Your task to perform on an android device: toggle priority inbox in the gmail app Image 0: 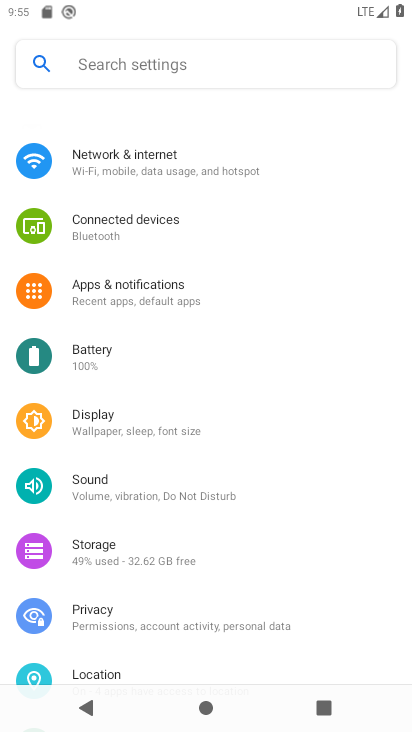
Step 0: press home button
Your task to perform on an android device: toggle priority inbox in the gmail app Image 1: 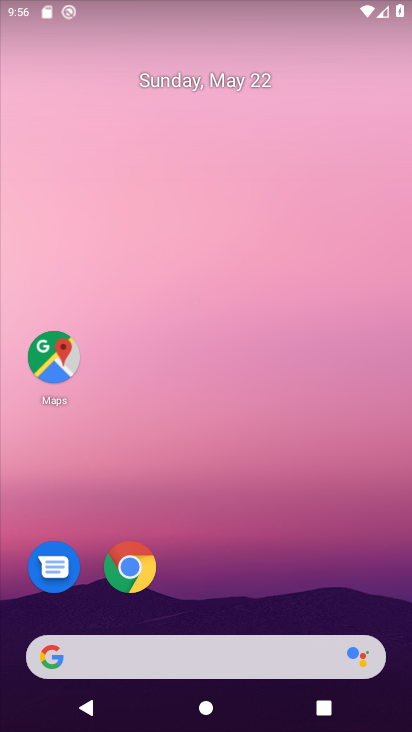
Step 1: drag from (235, 306) to (238, 70)
Your task to perform on an android device: toggle priority inbox in the gmail app Image 2: 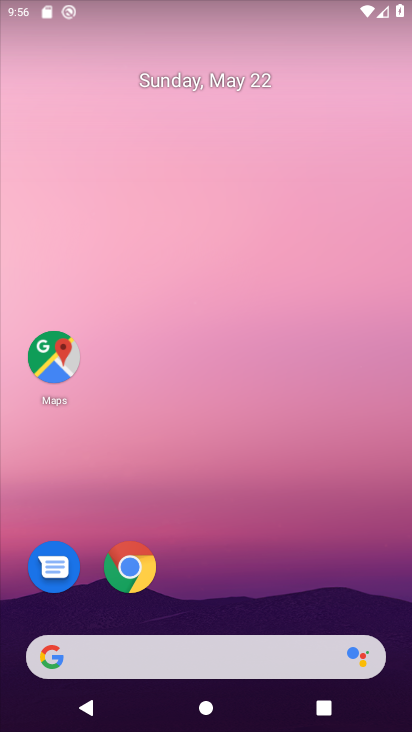
Step 2: drag from (225, 604) to (243, 63)
Your task to perform on an android device: toggle priority inbox in the gmail app Image 3: 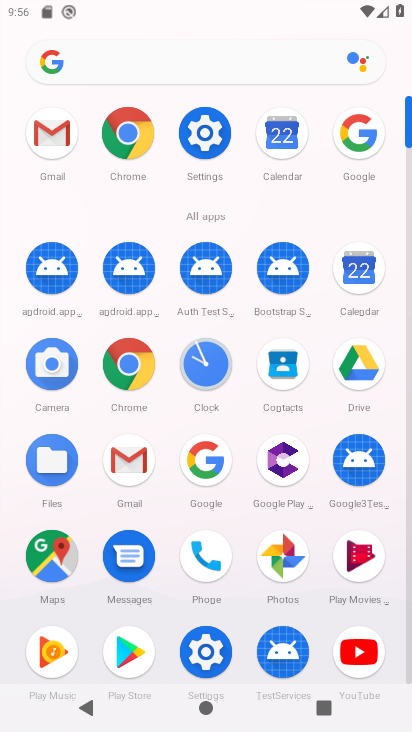
Step 3: click (43, 124)
Your task to perform on an android device: toggle priority inbox in the gmail app Image 4: 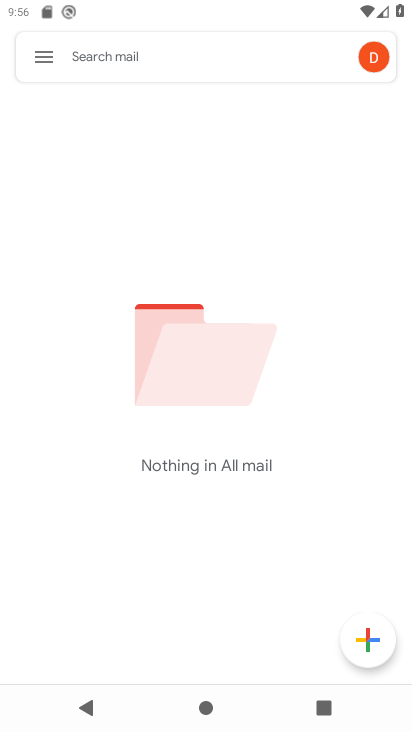
Step 4: click (37, 47)
Your task to perform on an android device: toggle priority inbox in the gmail app Image 5: 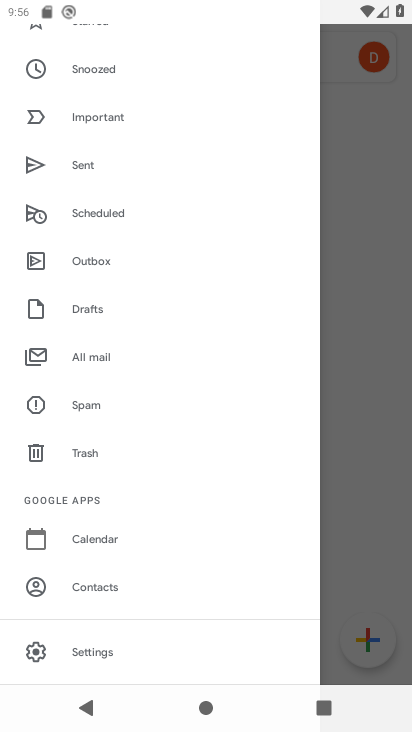
Step 5: click (125, 651)
Your task to perform on an android device: toggle priority inbox in the gmail app Image 6: 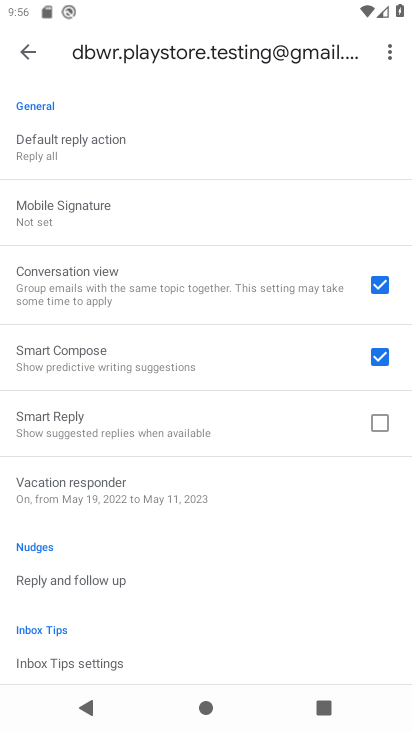
Step 6: drag from (178, 625) to (188, 88)
Your task to perform on an android device: toggle priority inbox in the gmail app Image 7: 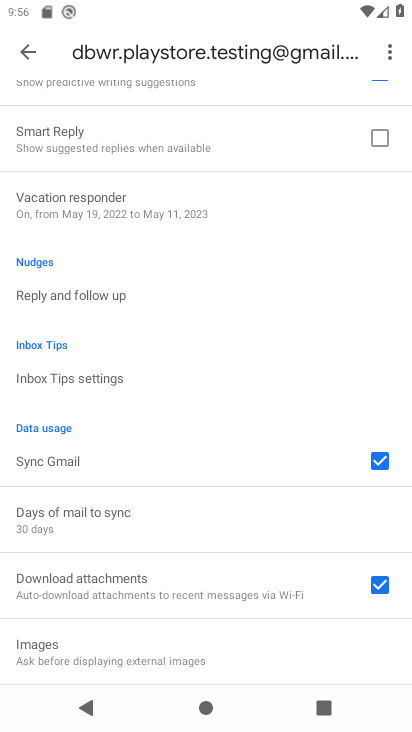
Step 7: click (28, 48)
Your task to perform on an android device: toggle priority inbox in the gmail app Image 8: 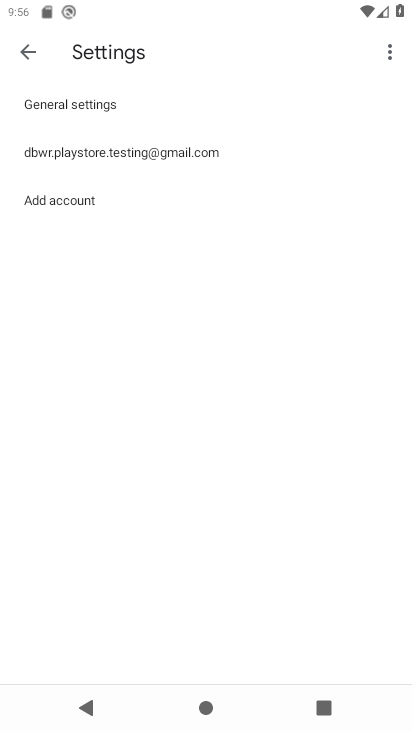
Step 8: click (124, 101)
Your task to perform on an android device: toggle priority inbox in the gmail app Image 9: 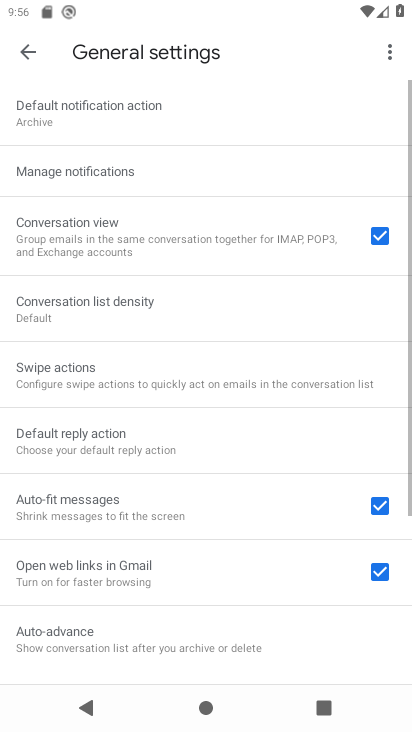
Step 9: click (36, 48)
Your task to perform on an android device: toggle priority inbox in the gmail app Image 10: 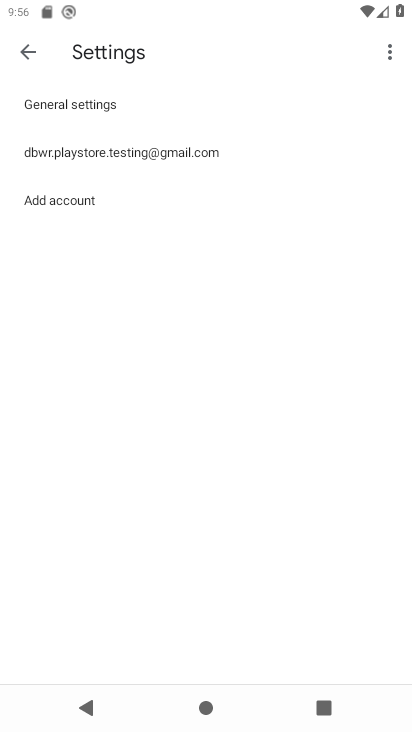
Step 10: click (145, 156)
Your task to perform on an android device: toggle priority inbox in the gmail app Image 11: 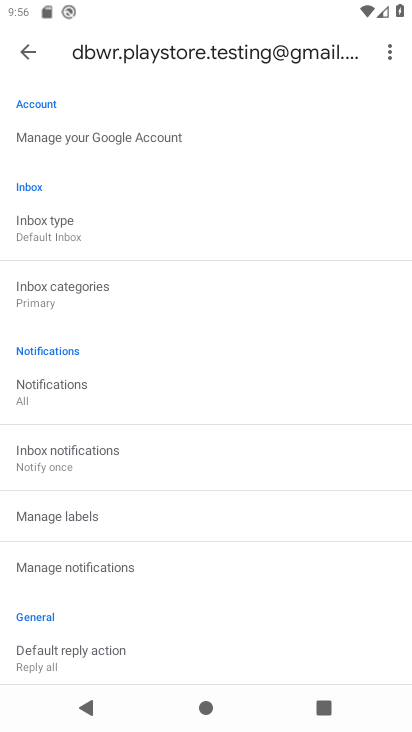
Step 11: click (110, 222)
Your task to perform on an android device: toggle priority inbox in the gmail app Image 12: 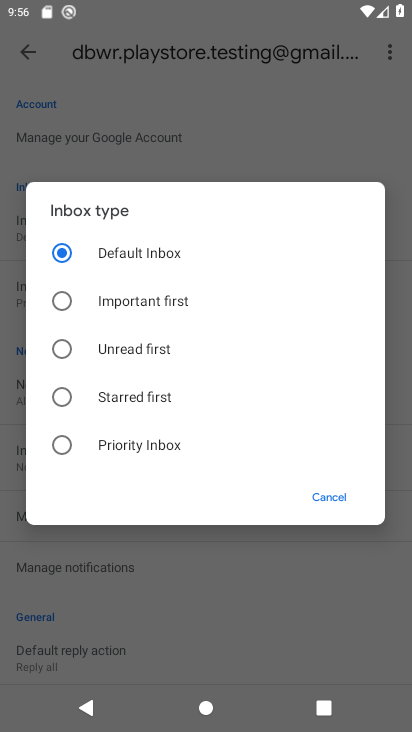
Step 12: click (60, 444)
Your task to perform on an android device: toggle priority inbox in the gmail app Image 13: 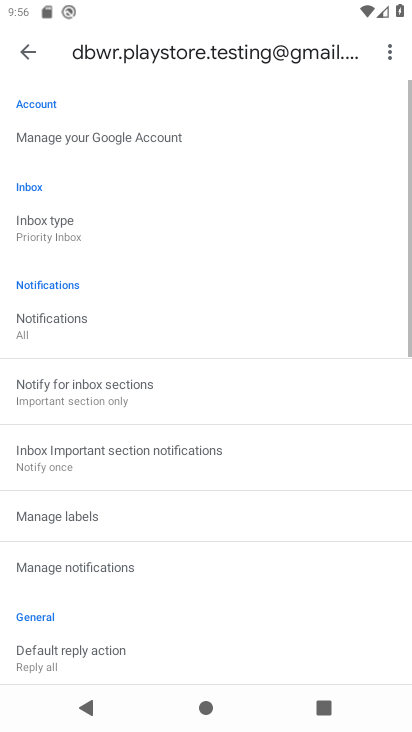
Step 13: task complete